Your task to perform on an android device: Go to Yahoo.com Image 0: 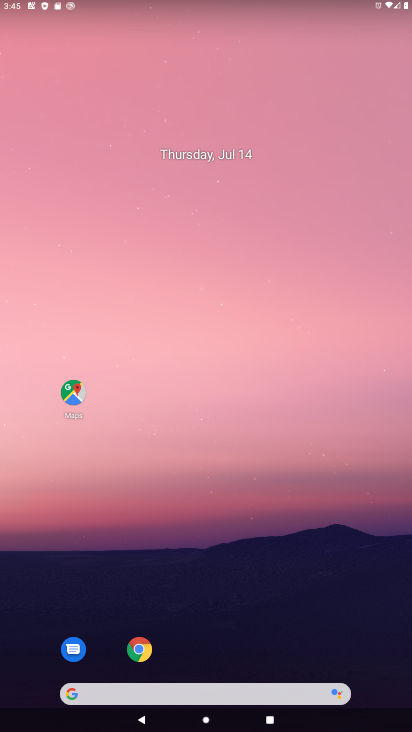
Step 0: click (139, 652)
Your task to perform on an android device: Go to Yahoo.com Image 1: 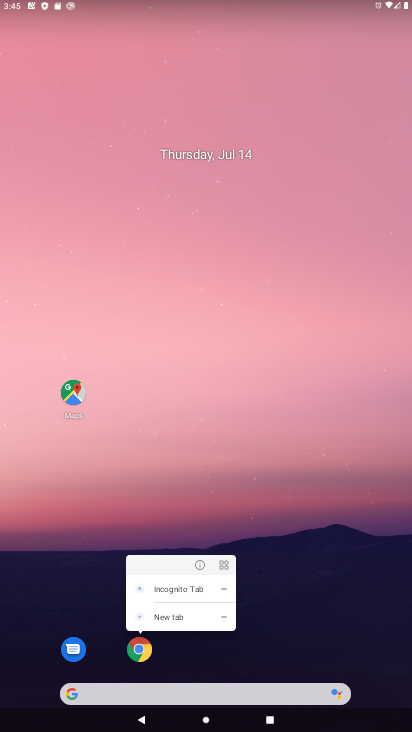
Step 1: click (156, 655)
Your task to perform on an android device: Go to Yahoo.com Image 2: 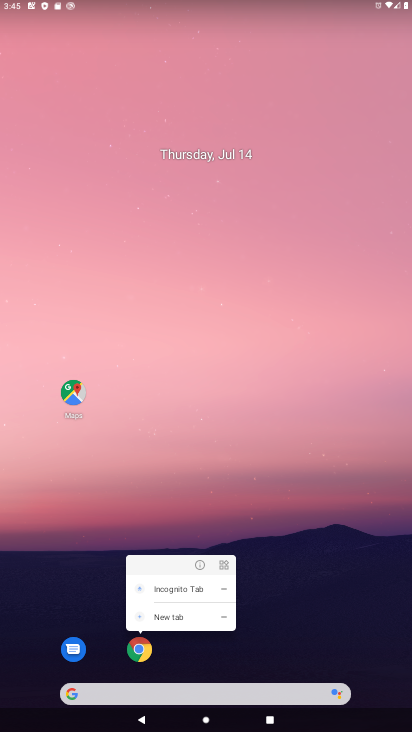
Step 2: click (143, 657)
Your task to perform on an android device: Go to Yahoo.com Image 3: 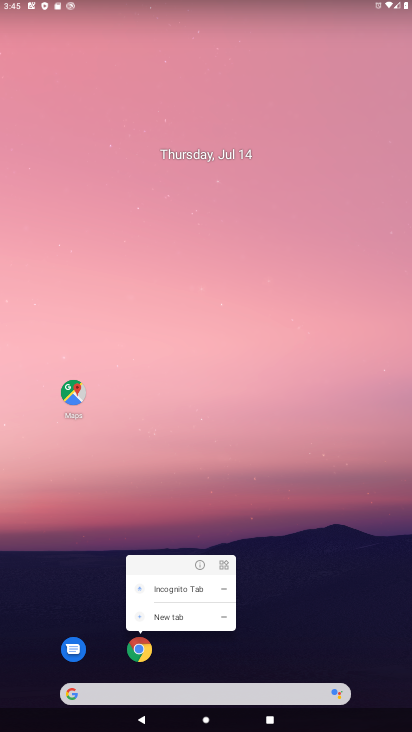
Step 3: click (132, 645)
Your task to perform on an android device: Go to Yahoo.com Image 4: 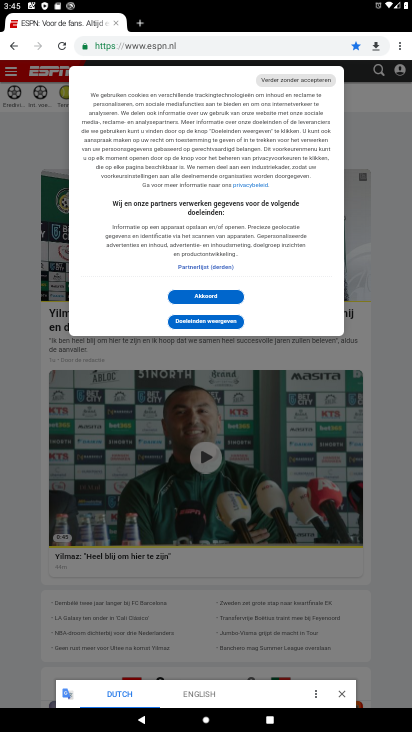
Step 4: click (172, 50)
Your task to perform on an android device: Go to Yahoo.com Image 5: 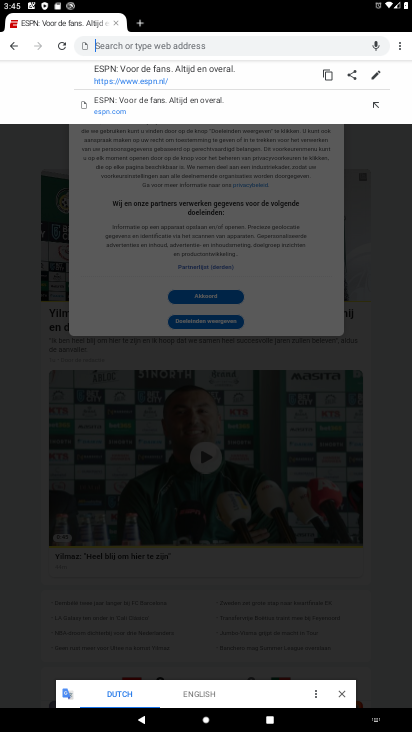
Step 5: type "Yahoo.com"
Your task to perform on an android device: Go to Yahoo.com Image 6: 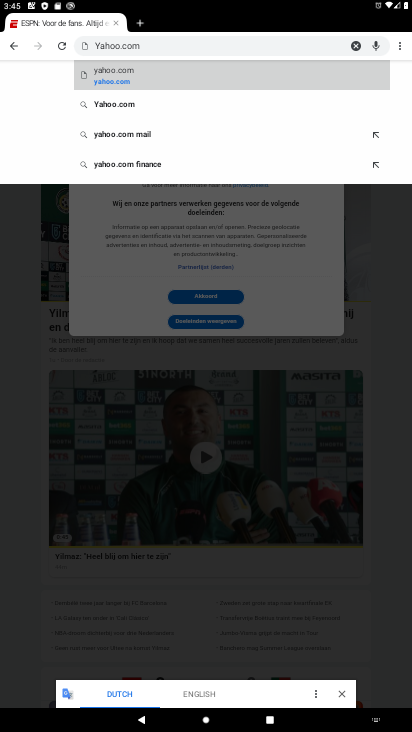
Step 6: click (153, 68)
Your task to perform on an android device: Go to Yahoo.com Image 7: 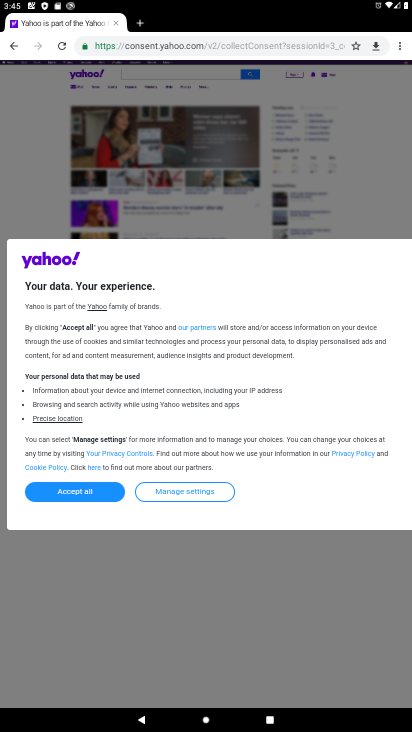
Step 7: task complete